Your task to perform on an android device: Go to Wikipedia Image 0: 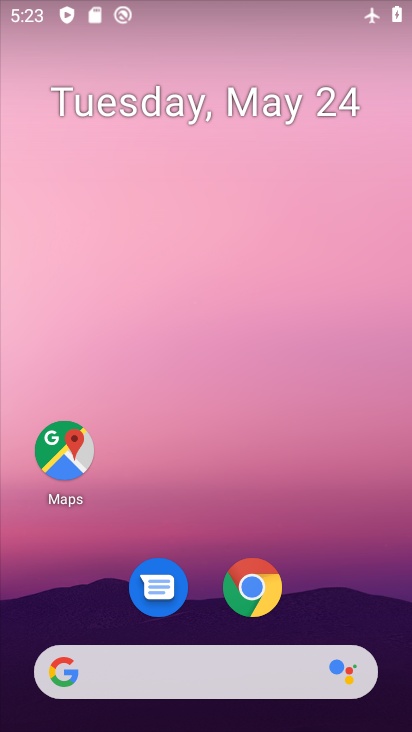
Step 0: click (261, 589)
Your task to perform on an android device: Go to Wikipedia Image 1: 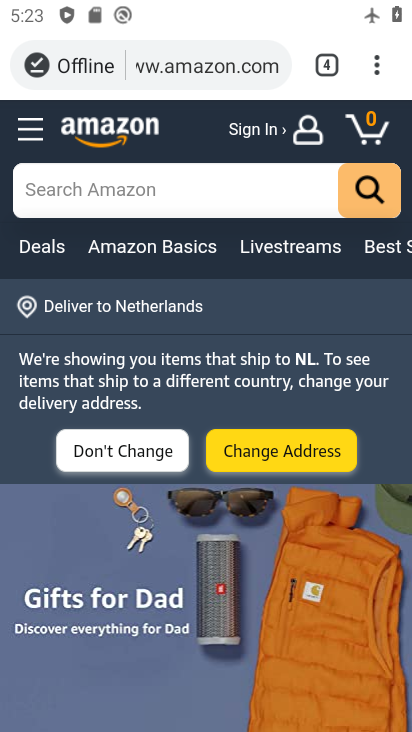
Step 1: click (323, 64)
Your task to perform on an android device: Go to Wikipedia Image 2: 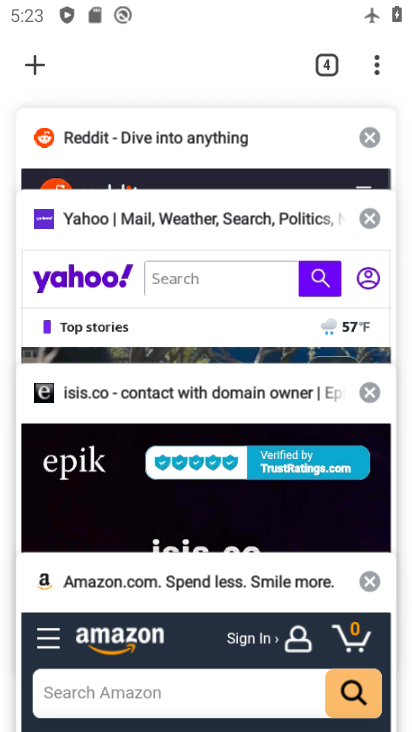
Step 2: click (32, 67)
Your task to perform on an android device: Go to Wikipedia Image 3: 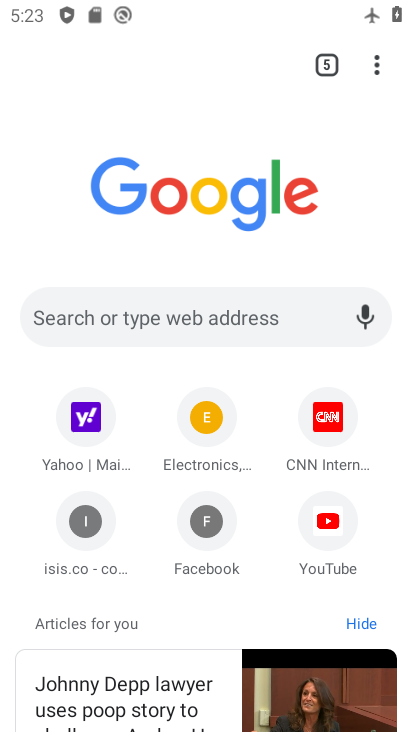
Step 3: click (162, 309)
Your task to perform on an android device: Go to Wikipedia Image 4: 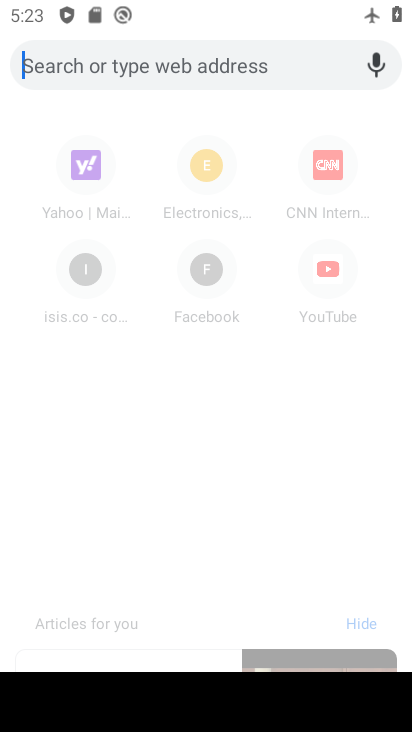
Step 4: type "wikipedia"
Your task to perform on an android device: Go to Wikipedia Image 5: 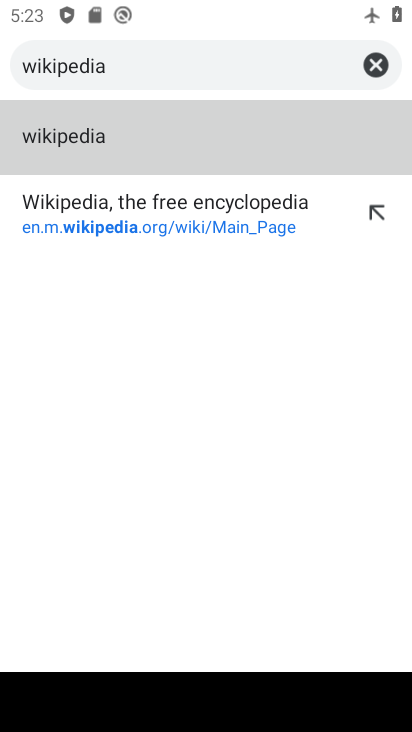
Step 5: click (162, 228)
Your task to perform on an android device: Go to Wikipedia Image 6: 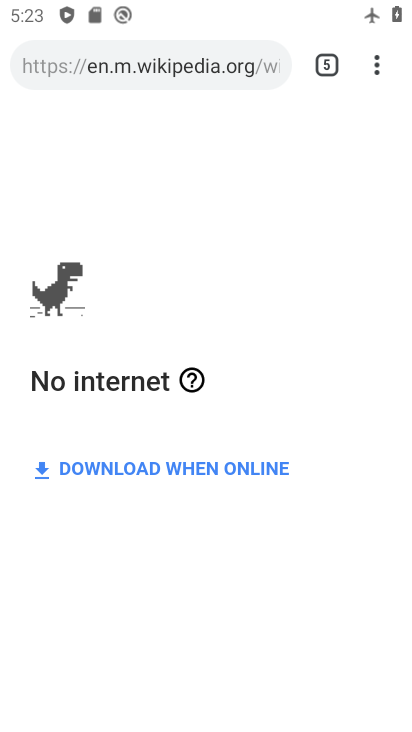
Step 6: task complete